Your task to perform on an android device: Open eBay Image 0: 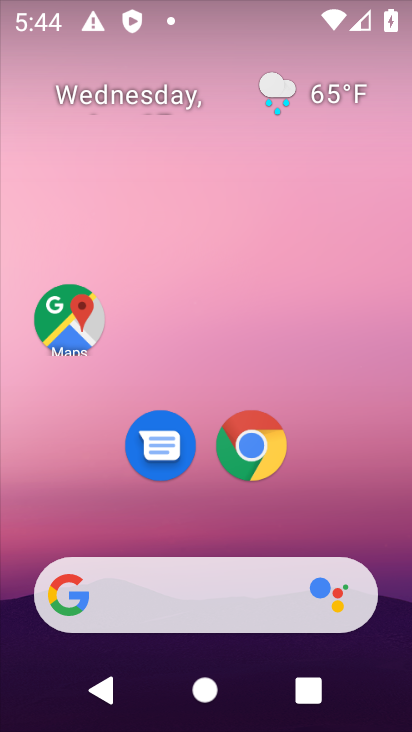
Step 0: click (249, 450)
Your task to perform on an android device: Open eBay Image 1: 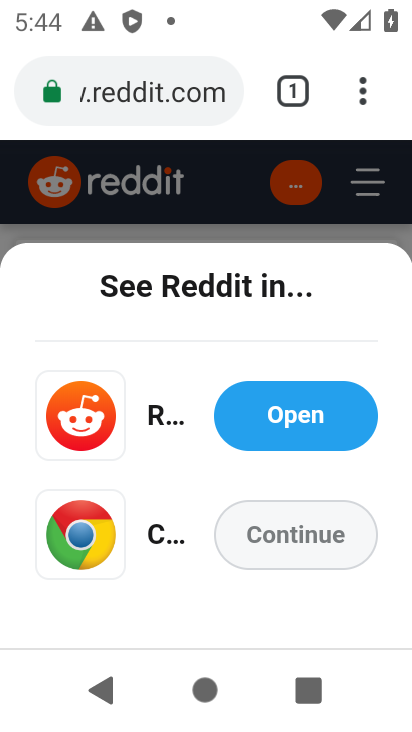
Step 1: click (298, 100)
Your task to perform on an android device: Open eBay Image 2: 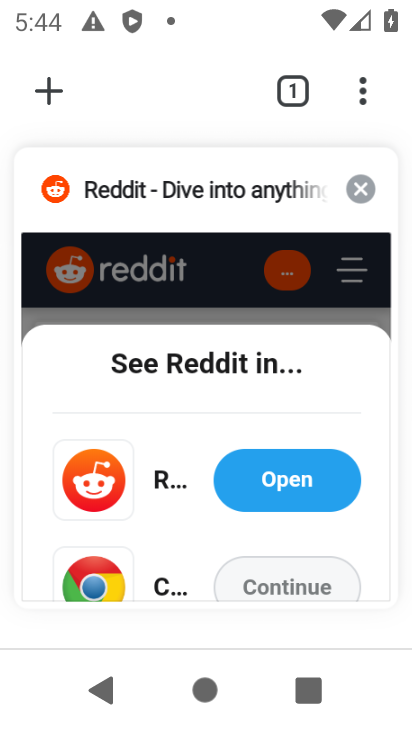
Step 2: click (49, 83)
Your task to perform on an android device: Open eBay Image 3: 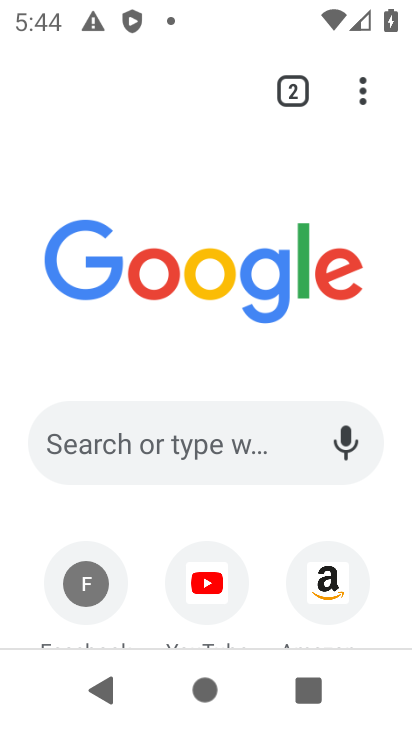
Step 3: drag from (223, 512) to (246, 161)
Your task to perform on an android device: Open eBay Image 4: 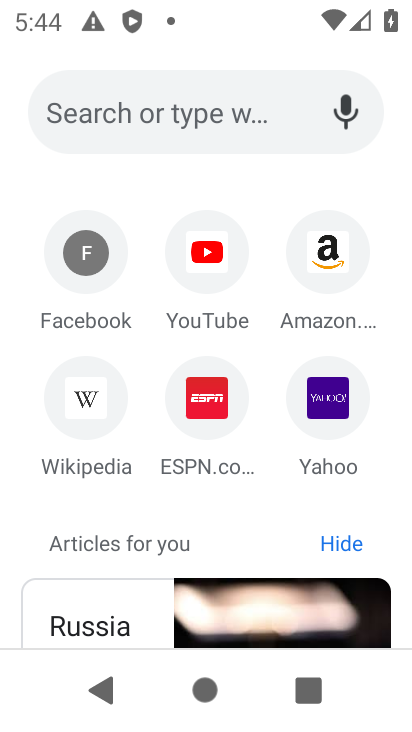
Step 4: click (202, 105)
Your task to perform on an android device: Open eBay Image 5: 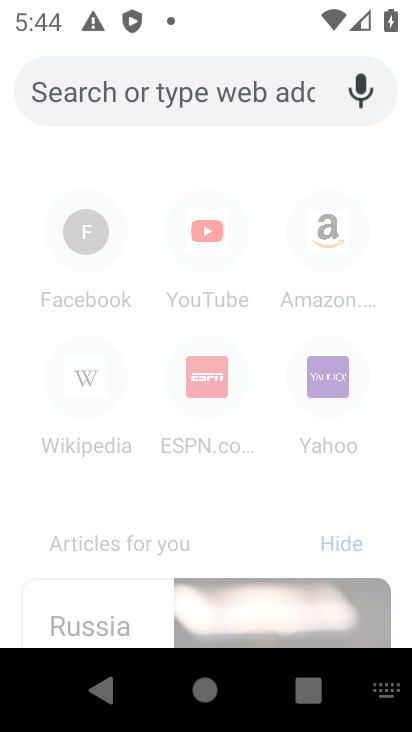
Step 5: type "eBay"
Your task to perform on an android device: Open eBay Image 6: 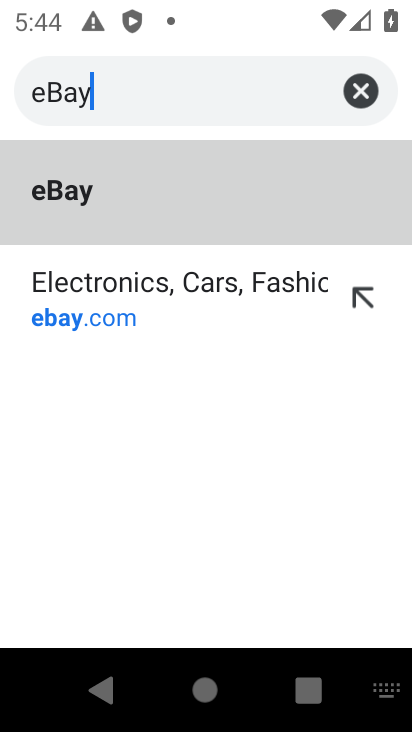
Step 6: type ""
Your task to perform on an android device: Open eBay Image 7: 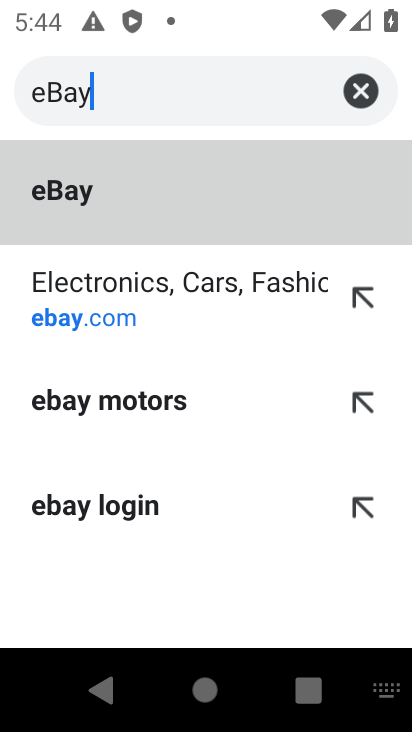
Step 7: click (112, 186)
Your task to perform on an android device: Open eBay Image 8: 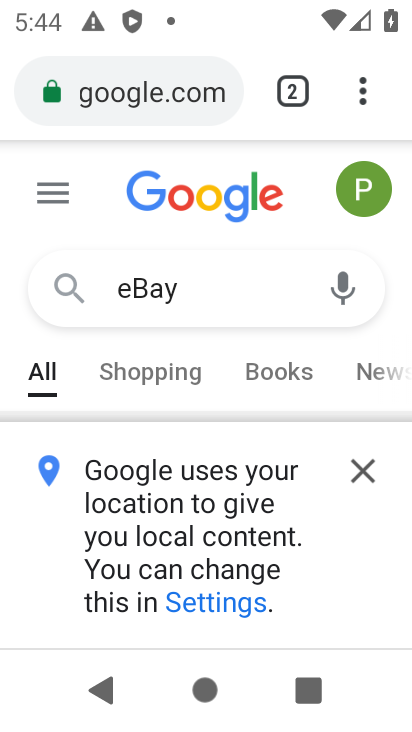
Step 8: click (358, 461)
Your task to perform on an android device: Open eBay Image 9: 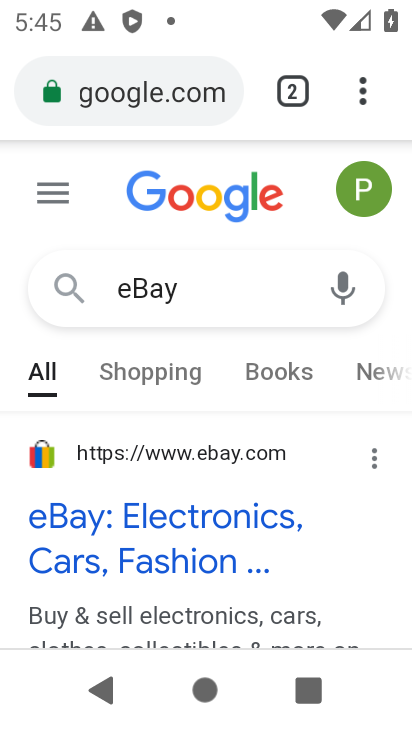
Step 9: click (215, 523)
Your task to perform on an android device: Open eBay Image 10: 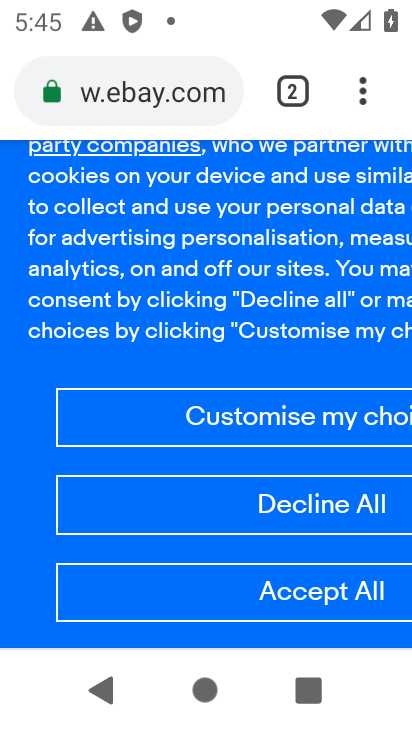
Step 10: task complete